Your task to perform on an android device: Open the phone app and click the voicemail tab. Image 0: 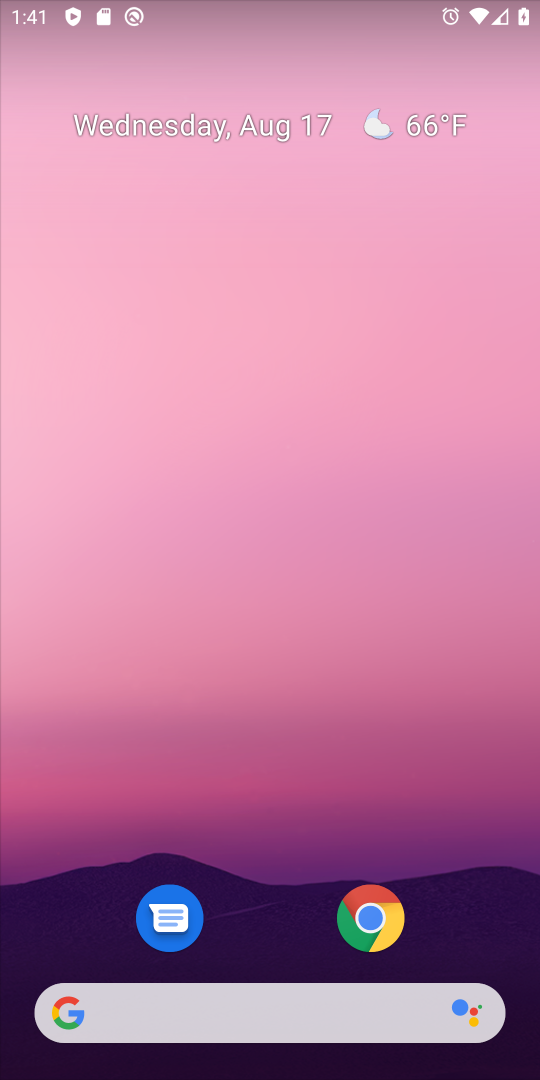
Step 0: drag from (289, 1017) to (373, 166)
Your task to perform on an android device: Open the phone app and click the voicemail tab. Image 1: 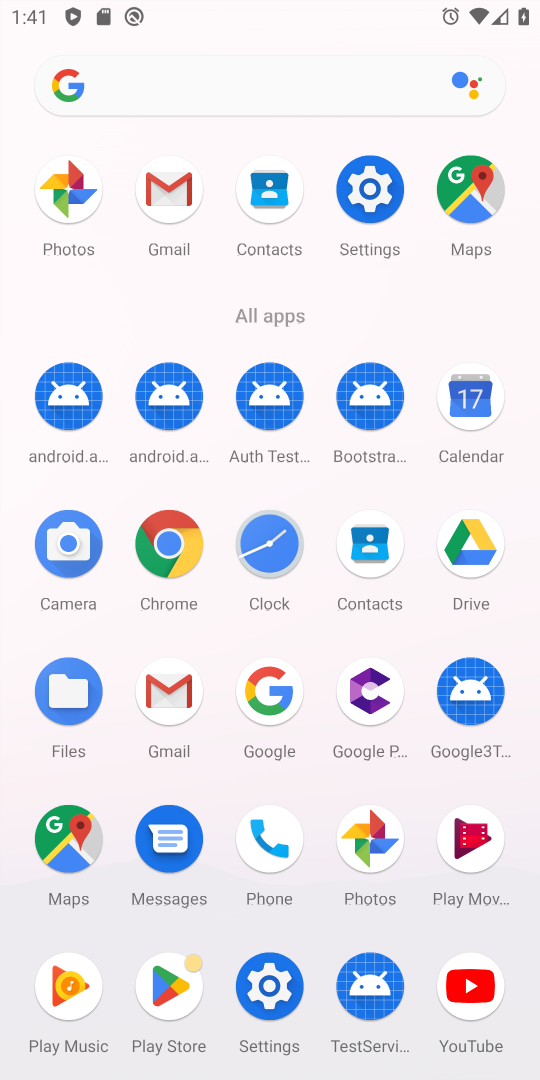
Step 1: click (285, 844)
Your task to perform on an android device: Open the phone app and click the voicemail tab. Image 2: 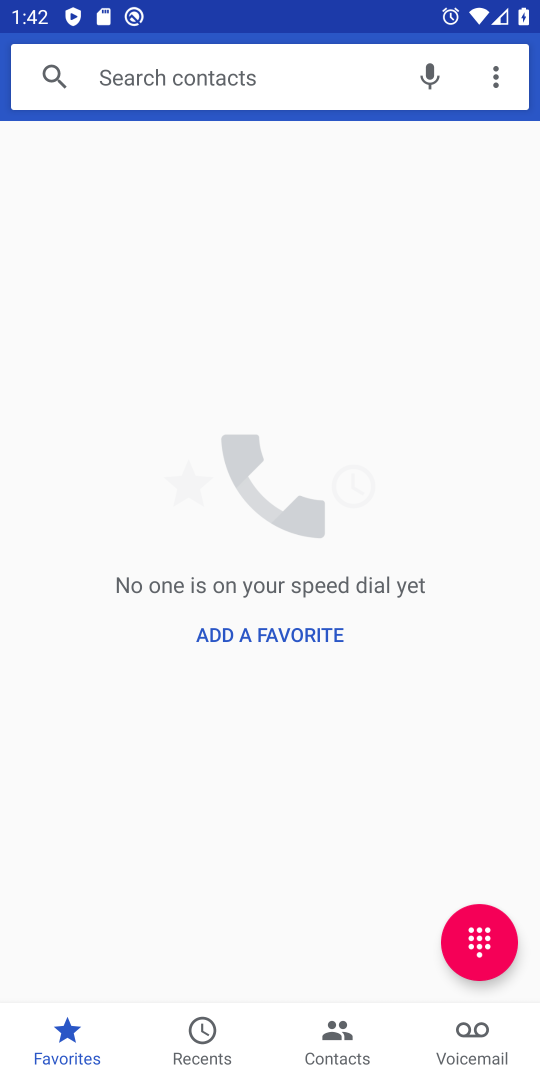
Step 2: click (482, 1052)
Your task to perform on an android device: Open the phone app and click the voicemail tab. Image 3: 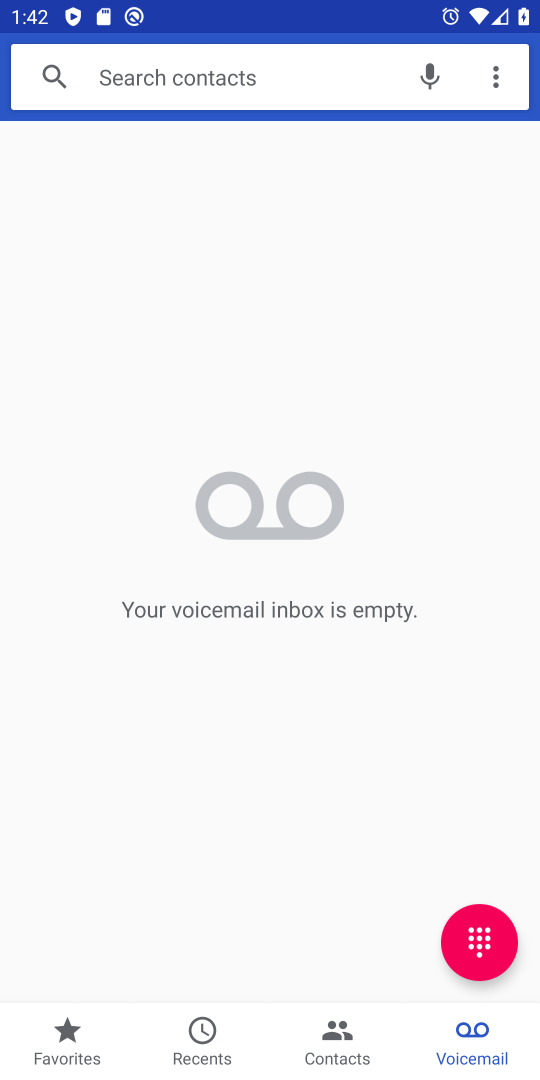
Step 3: task complete